Your task to perform on an android device: turn off sleep mode Image 0: 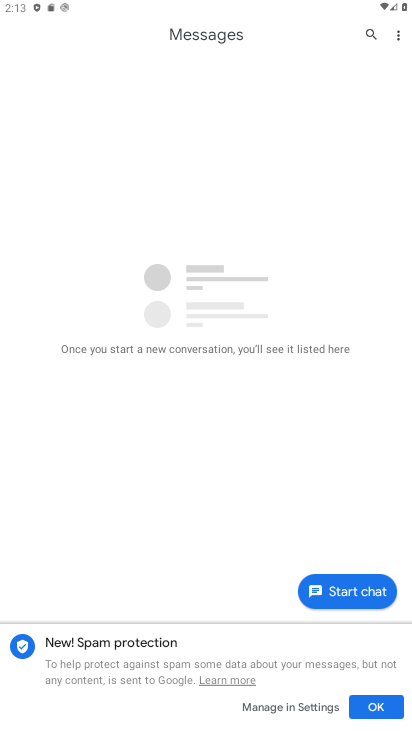
Step 0: press home button
Your task to perform on an android device: turn off sleep mode Image 1: 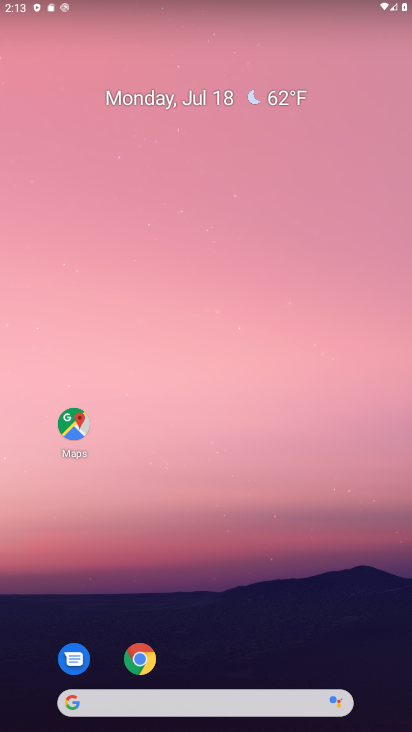
Step 1: drag from (245, 660) to (266, 129)
Your task to perform on an android device: turn off sleep mode Image 2: 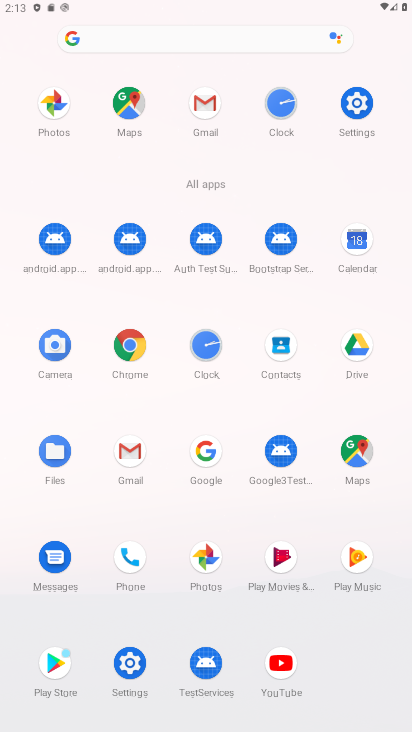
Step 2: click (135, 655)
Your task to perform on an android device: turn off sleep mode Image 3: 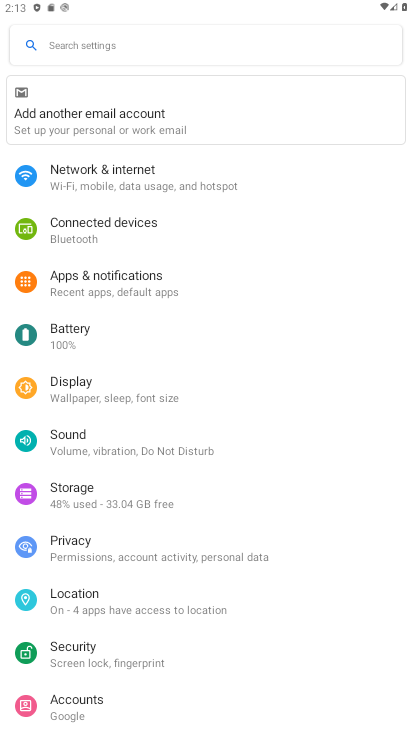
Step 3: click (90, 395)
Your task to perform on an android device: turn off sleep mode Image 4: 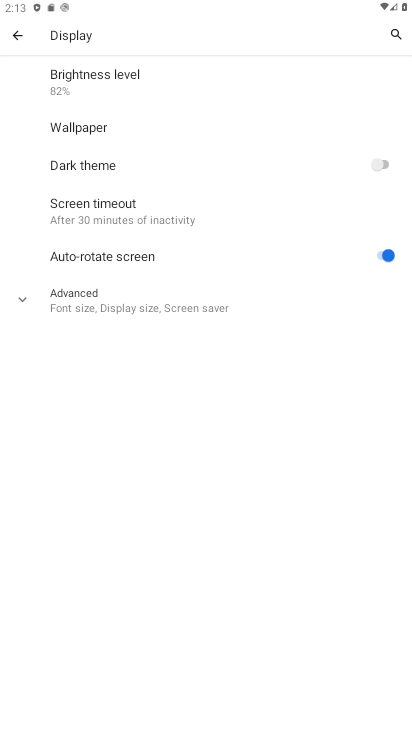
Step 4: click (236, 302)
Your task to perform on an android device: turn off sleep mode Image 5: 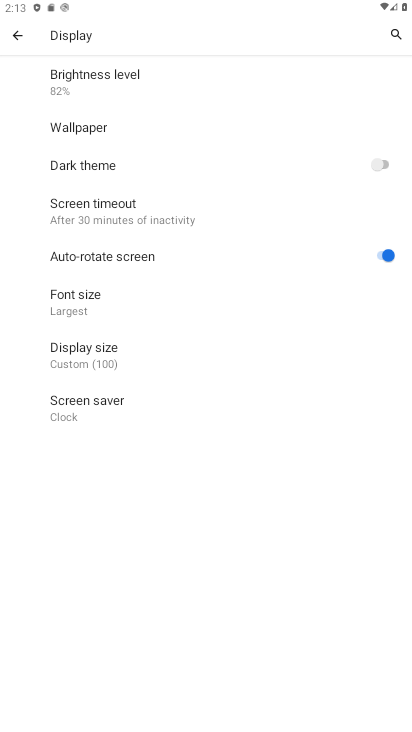
Step 5: task complete